Your task to perform on an android device: Open the calendar app, open the side menu, and click the "Day" option Image 0: 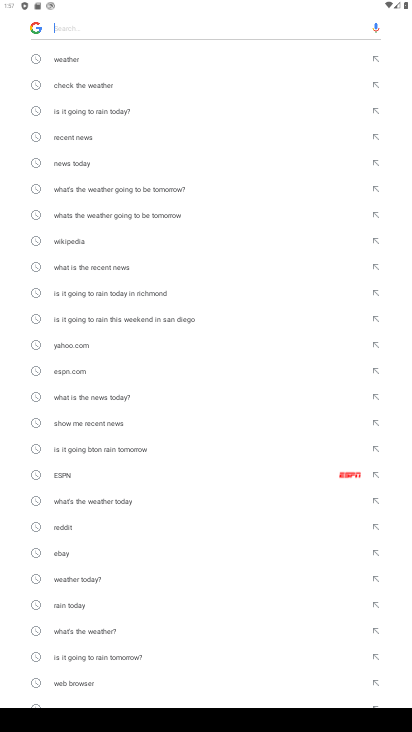
Step 0: press home button
Your task to perform on an android device: Open the calendar app, open the side menu, and click the "Day" option Image 1: 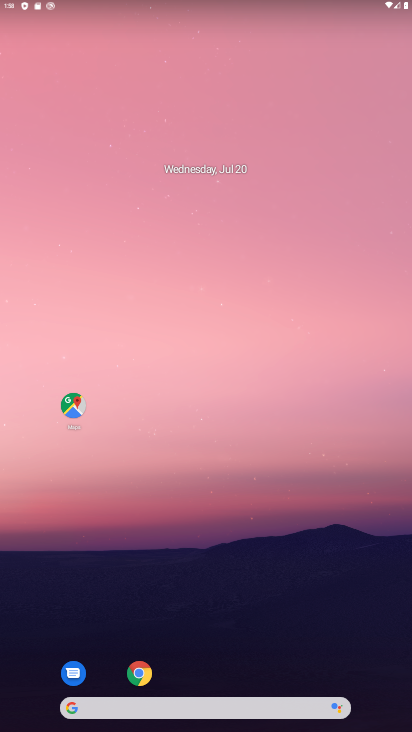
Step 1: drag from (370, 513) to (307, 139)
Your task to perform on an android device: Open the calendar app, open the side menu, and click the "Day" option Image 2: 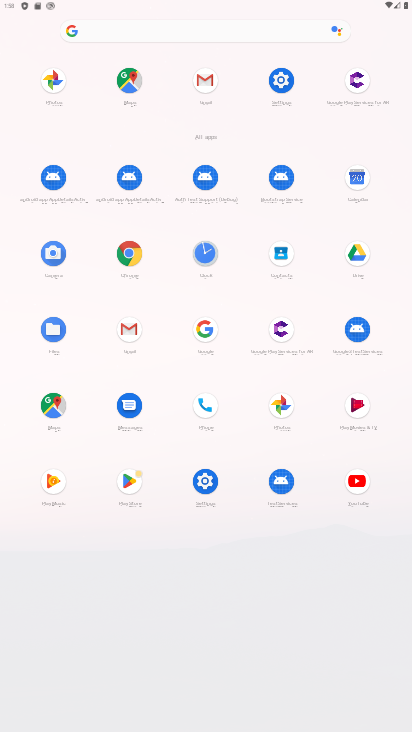
Step 2: click (348, 172)
Your task to perform on an android device: Open the calendar app, open the side menu, and click the "Day" option Image 3: 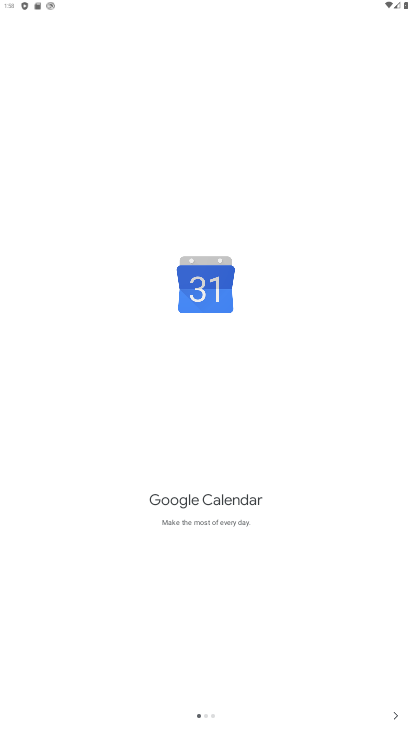
Step 3: click (399, 714)
Your task to perform on an android device: Open the calendar app, open the side menu, and click the "Day" option Image 4: 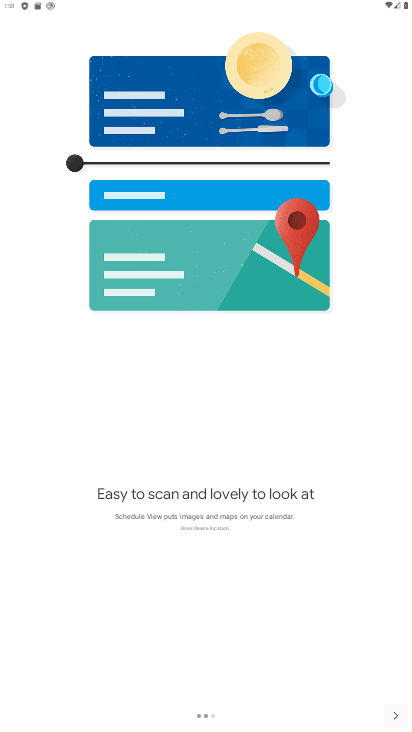
Step 4: click (399, 714)
Your task to perform on an android device: Open the calendar app, open the side menu, and click the "Day" option Image 5: 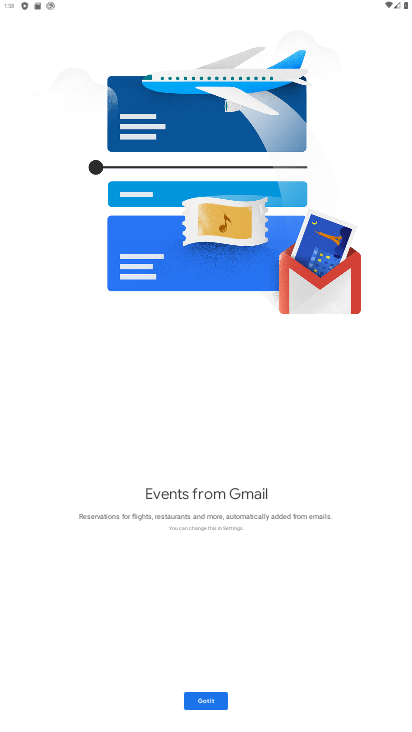
Step 5: click (207, 699)
Your task to perform on an android device: Open the calendar app, open the side menu, and click the "Day" option Image 6: 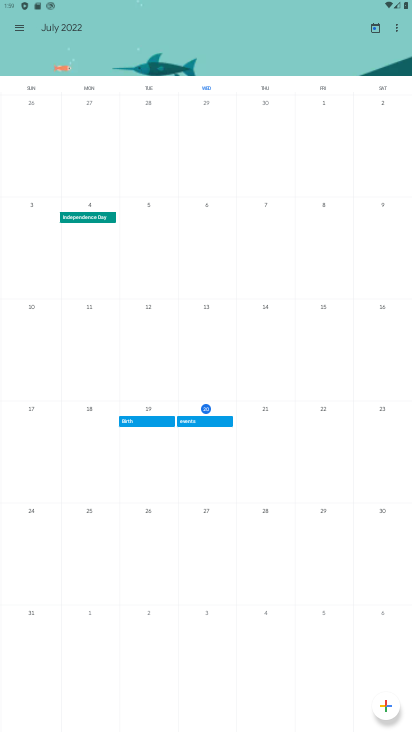
Step 6: click (17, 30)
Your task to perform on an android device: Open the calendar app, open the side menu, and click the "Day" option Image 7: 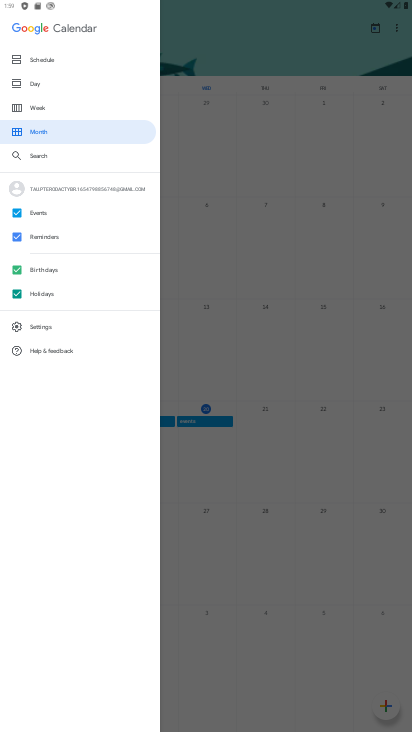
Step 7: click (42, 81)
Your task to perform on an android device: Open the calendar app, open the side menu, and click the "Day" option Image 8: 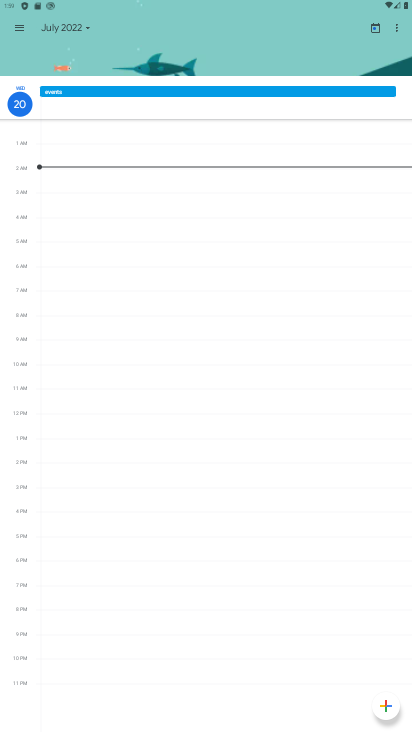
Step 8: task complete